Your task to perform on an android device: move an email to a new category in the gmail app Image 0: 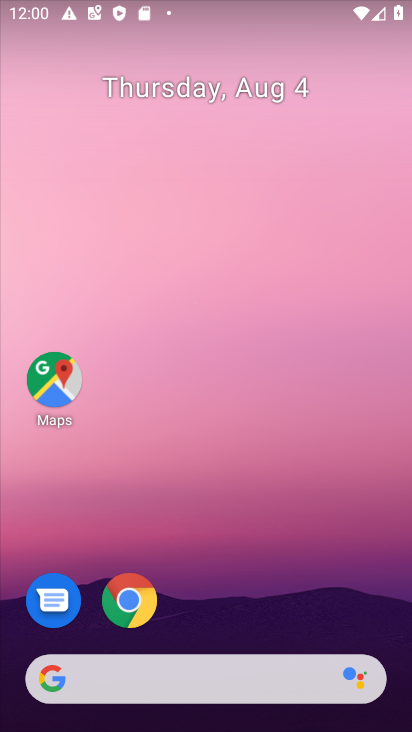
Step 0: drag from (179, 683) to (212, 142)
Your task to perform on an android device: move an email to a new category in the gmail app Image 1: 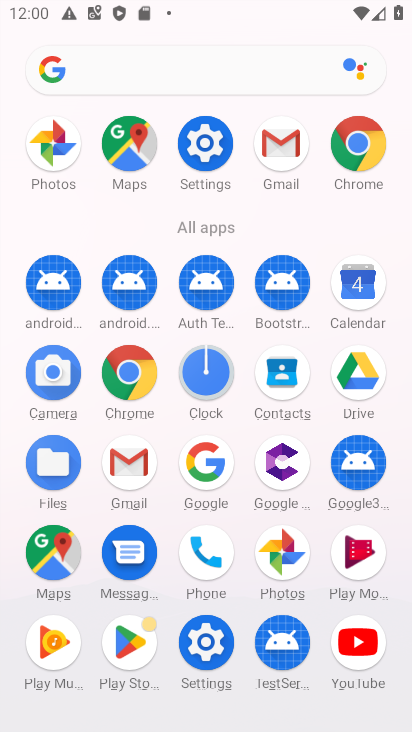
Step 1: click (275, 156)
Your task to perform on an android device: move an email to a new category in the gmail app Image 2: 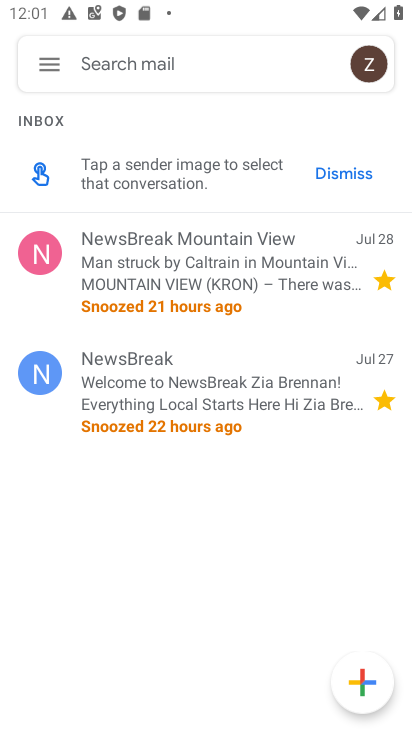
Step 2: click (129, 256)
Your task to perform on an android device: move an email to a new category in the gmail app Image 3: 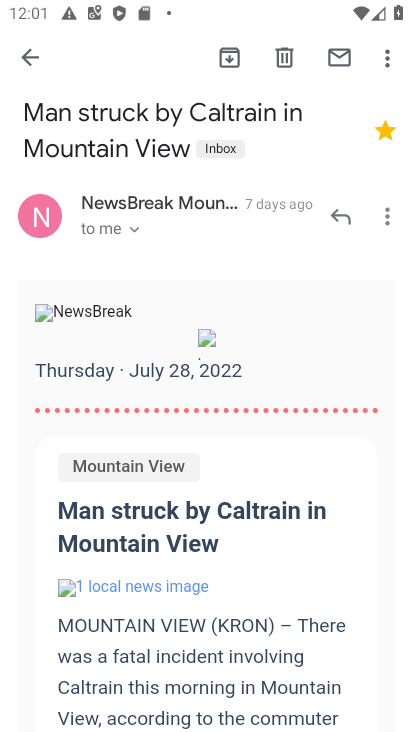
Step 3: click (228, 145)
Your task to perform on an android device: move an email to a new category in the gmail app Image 4: 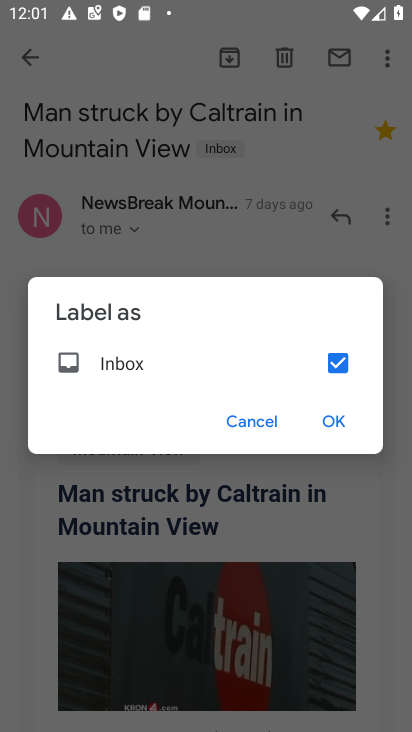
Step 4: click (26, 56)
Your task to perform on an android device: move an email to a new category in the gmail app Image 5: 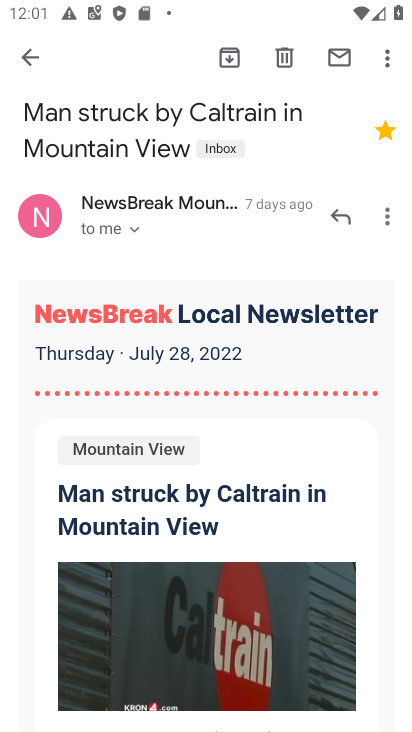
Step 5: click (29, 63)
Your task to perform on an android device: move an email to a new category in the gmail app Image 6: 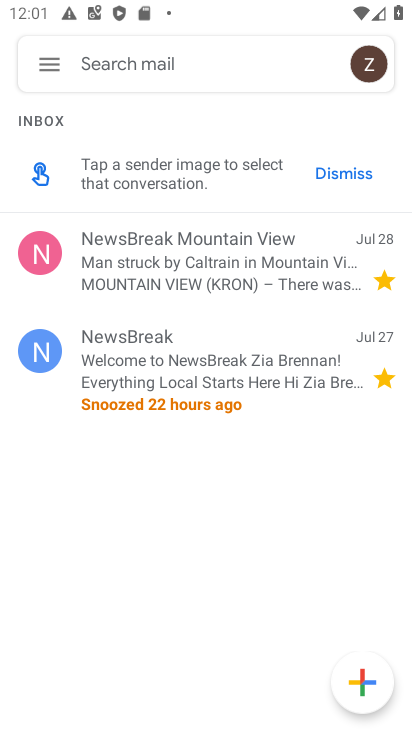
Step 6: click (48, 254)
Your task to perform on an android device: move an email to a new category in the gmail app Image 7: 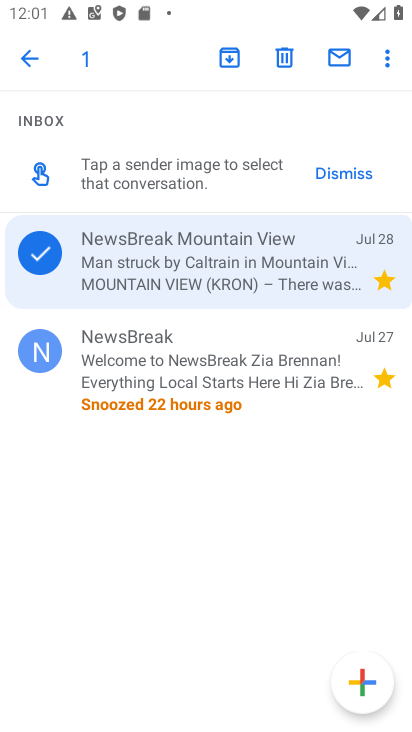
Step 7: click (386, 60)
Your task to perform on an android device: move an email to a new category in the gmail app Image 8: 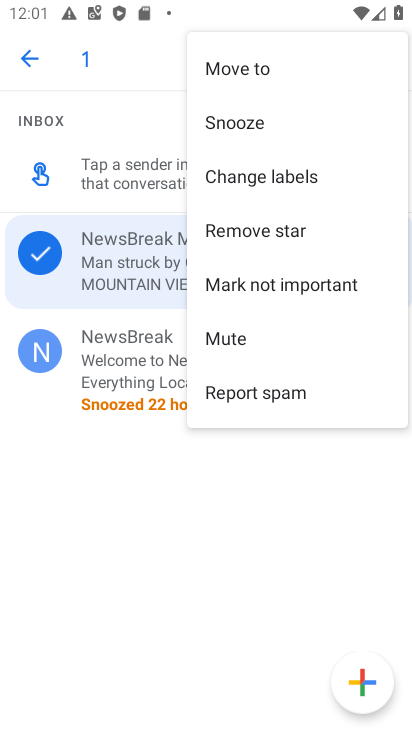
Step 8: click (244, 73)
Your task to perform on an android device: move an email to a new category in the gmail app Image 9: 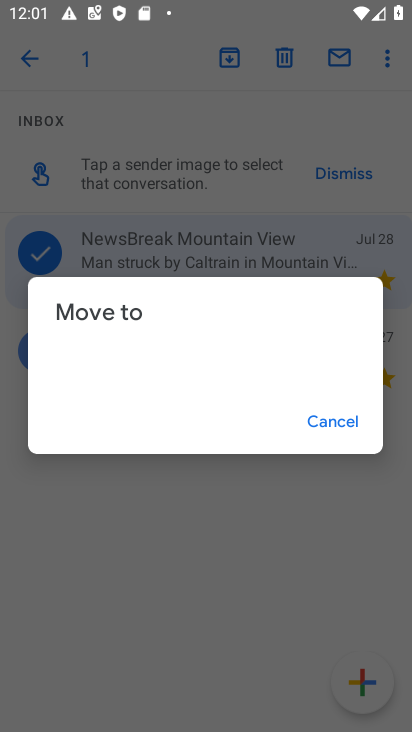
Step 9: click (351, 424)
Your task to perform on an android device: move an email to a new category in the gmail app Image 10: 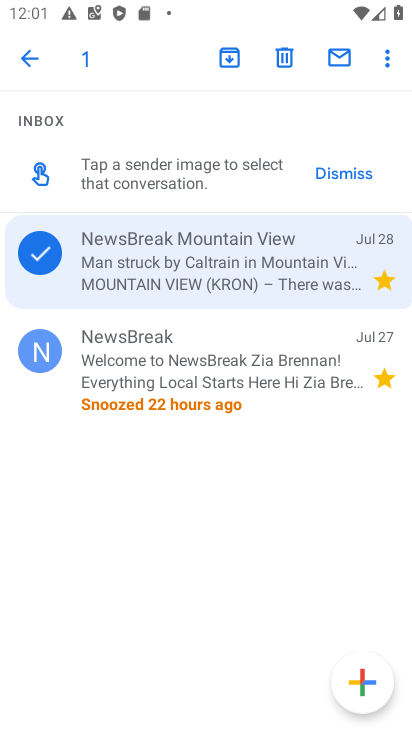
Step 10: click (16, 244)
Your task to perform on an android device: move an email to a new category in the gmail app Image 11: 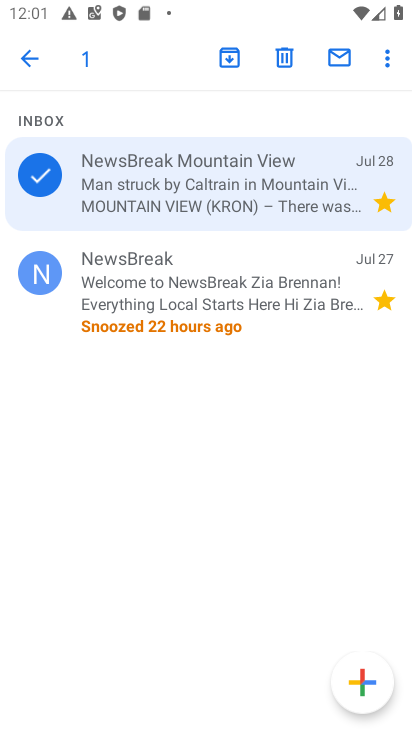
Step 11: click (40, 171)
Your task to perform on an android device: move an email to a new category in the gmail app Image 12: 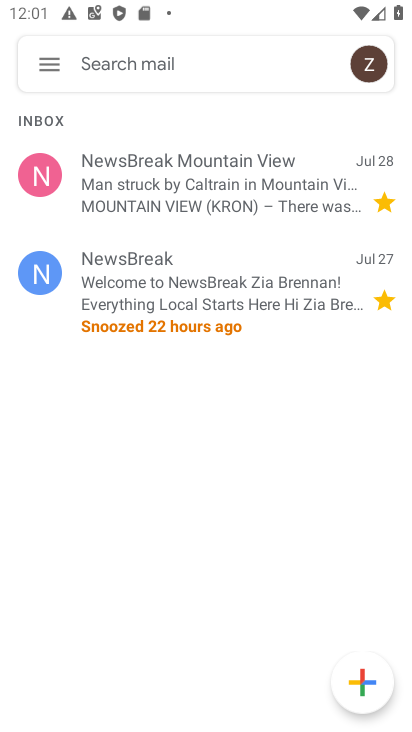
Step 12: task complete